Your task to perform on an android device: Do I have any events today? Image 0: 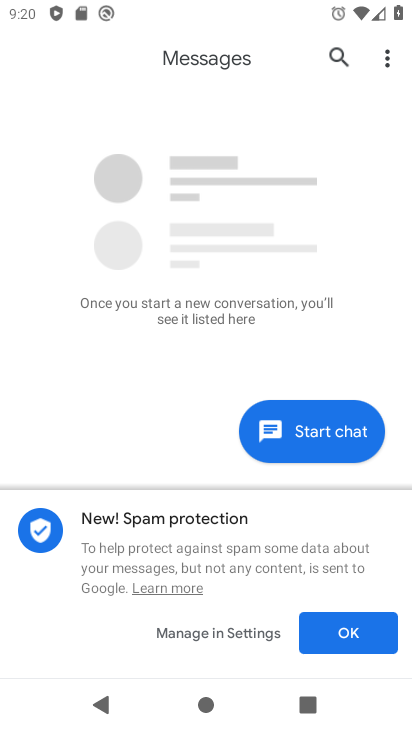
Step 0: press home button
Your task to perform on an android device: Do I have any events today? Image 1: 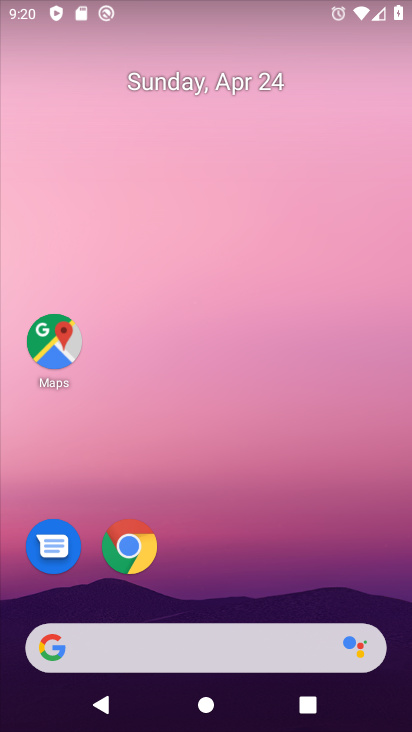
Step 1: drag from (267, 607) to (283, 188)
Your task to perform on an android device: Do I have any events today? Image 2: 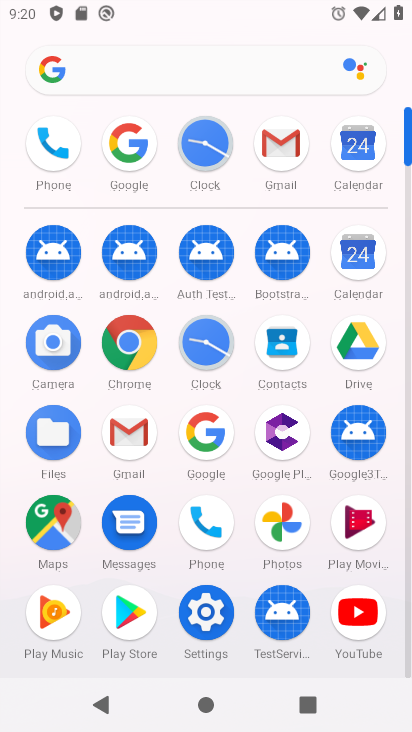
Step 2: click (346, 240)
Your task to perform on an android device: Do I have any events today? Image 3: 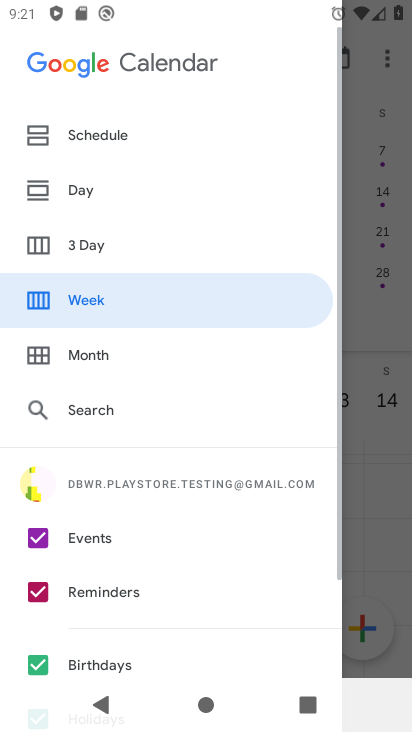
Step 3: click (139, 202)
Your task to perform on an android device: Do I have any events today? Image 4: 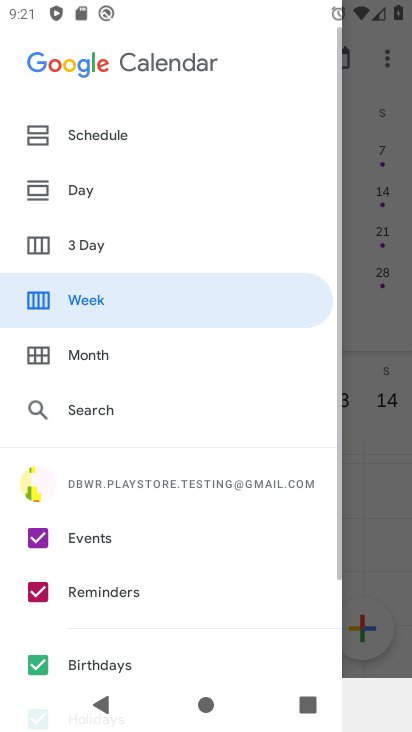
Step 4: click (92, 180)
Your task to perform on an android device: Do I have any events today? Image 5: 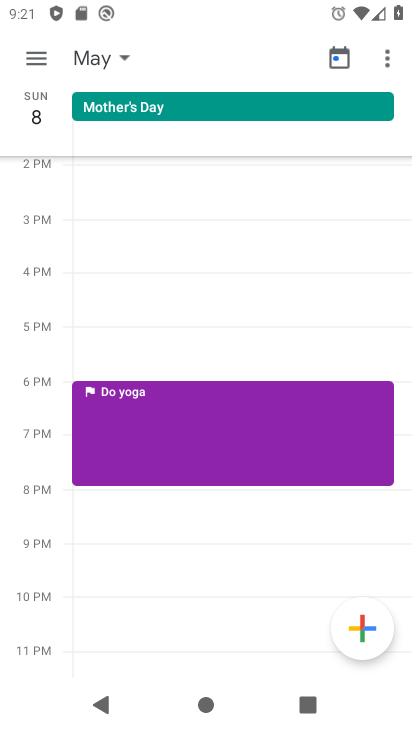
Step 5: click (127, 58)
Your task to perform on an android device: Do I have any events today? Image 6: 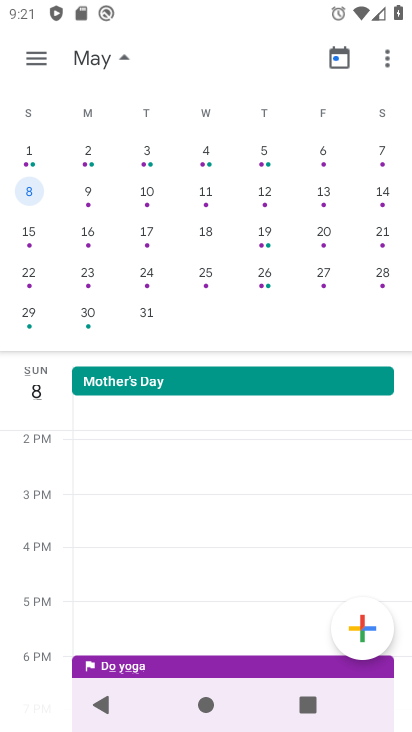
Step 6: drag from (44, 216) to (411, 240)
Your task to perform on an android device: Do I have any events today? Image 7: 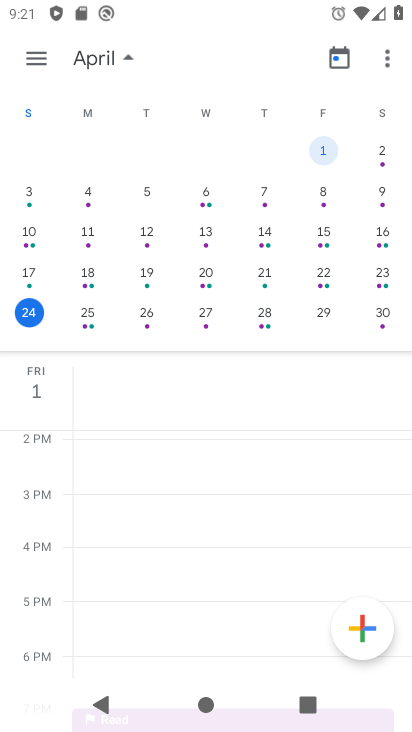
Step 7: click (34, 319)
Your task to perform on an android device: Do I have any events today? Image 8: 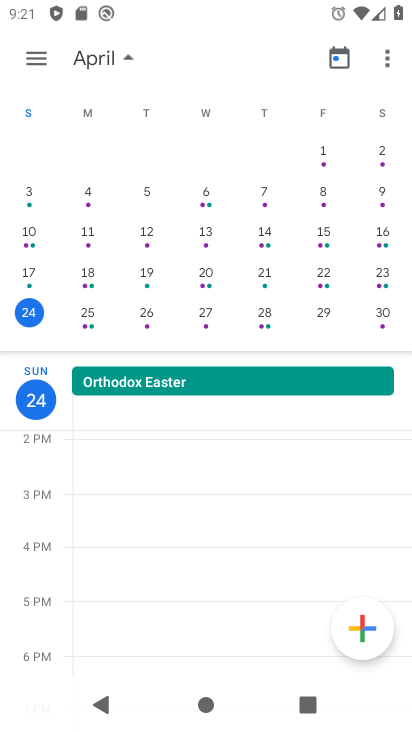
Step 8: task complete